Your task to perform on an android device: uninstall "Microsoft Excel" Image 0: 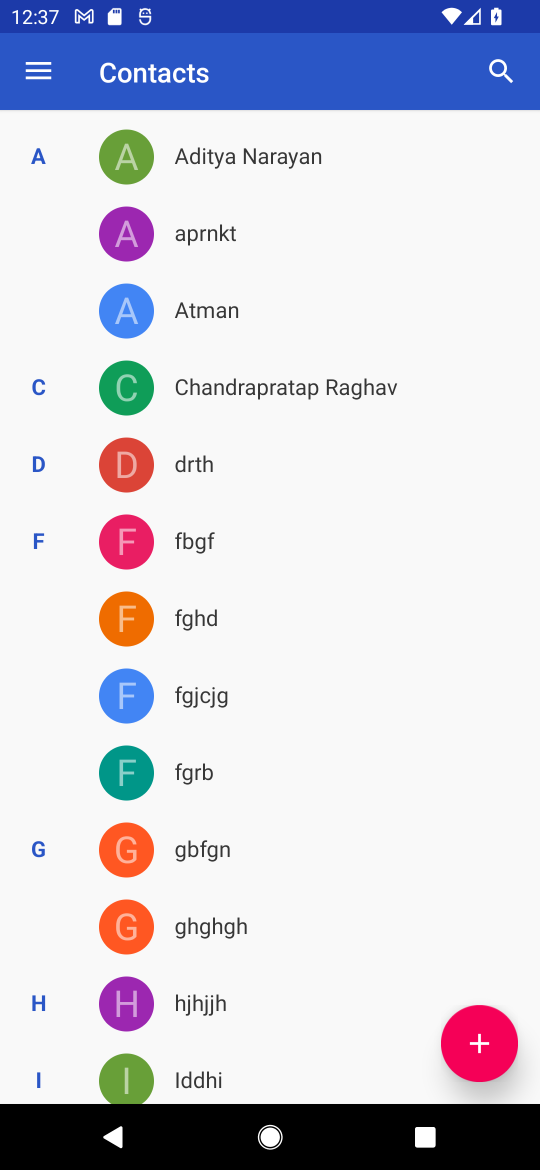
Step 0: press home button
Your task to perform on an android device: uninstall "Microsoft Excel" Image 1: 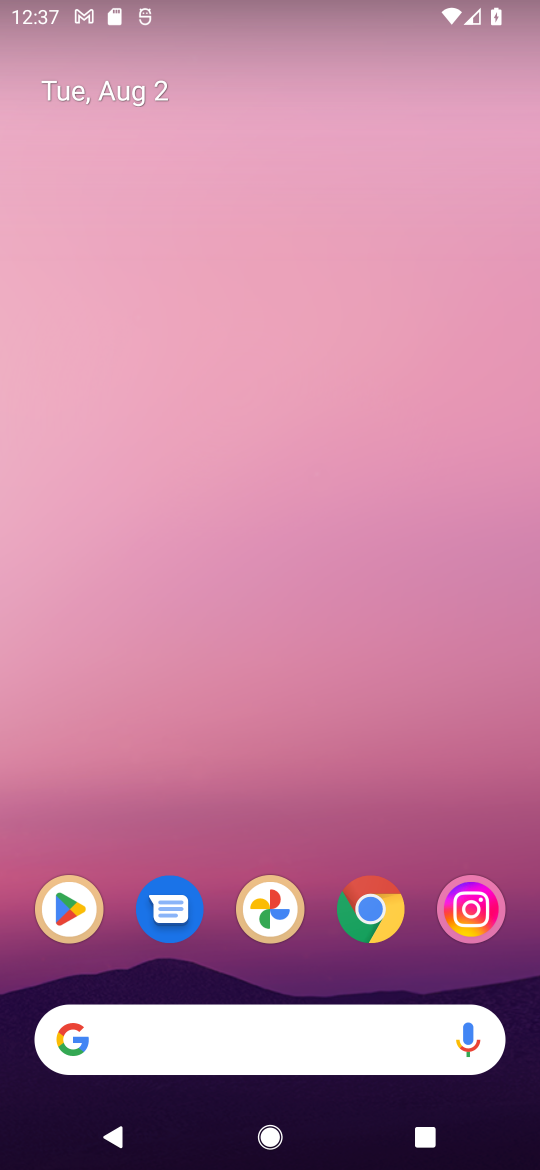
Step 1: click (61, 898)
Your task to perform on an android device: uninstall "Microsoft Excel" Image 2: 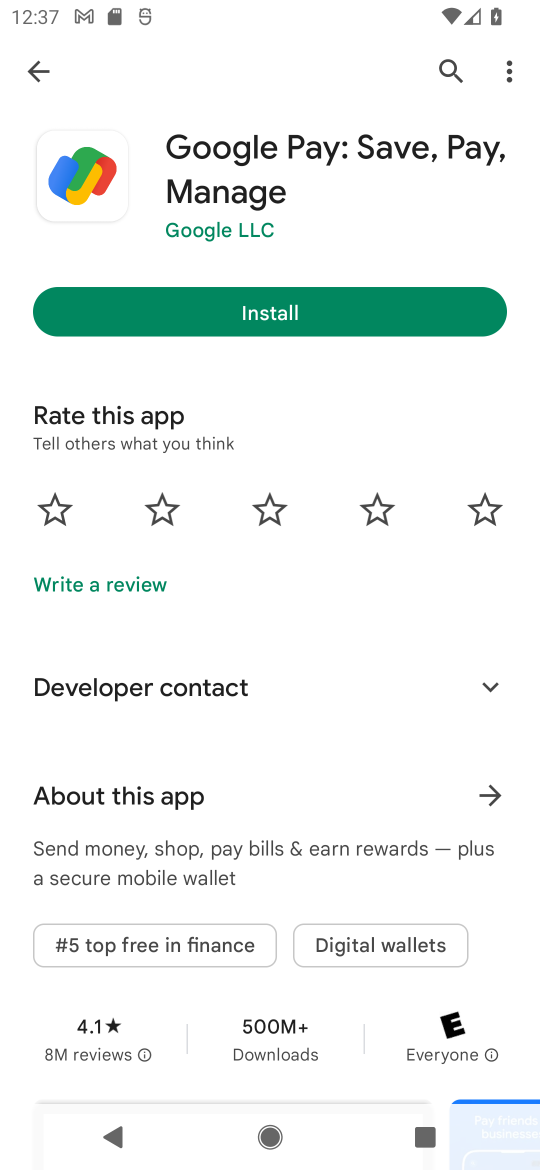
Step 2: click (448, 57)
Your task to perform on an android device: uninstall "Microsoft Excel" Image 3: 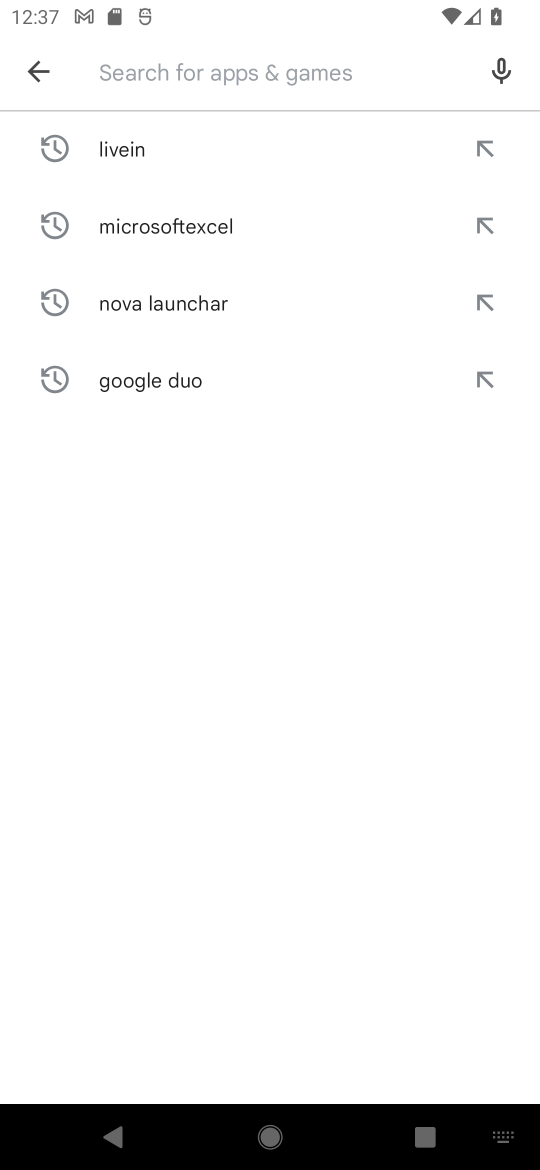
Step 3: click (517, 1150)
Your task to perform on an android device: uninstall "Microsoft Excel" Image 4: 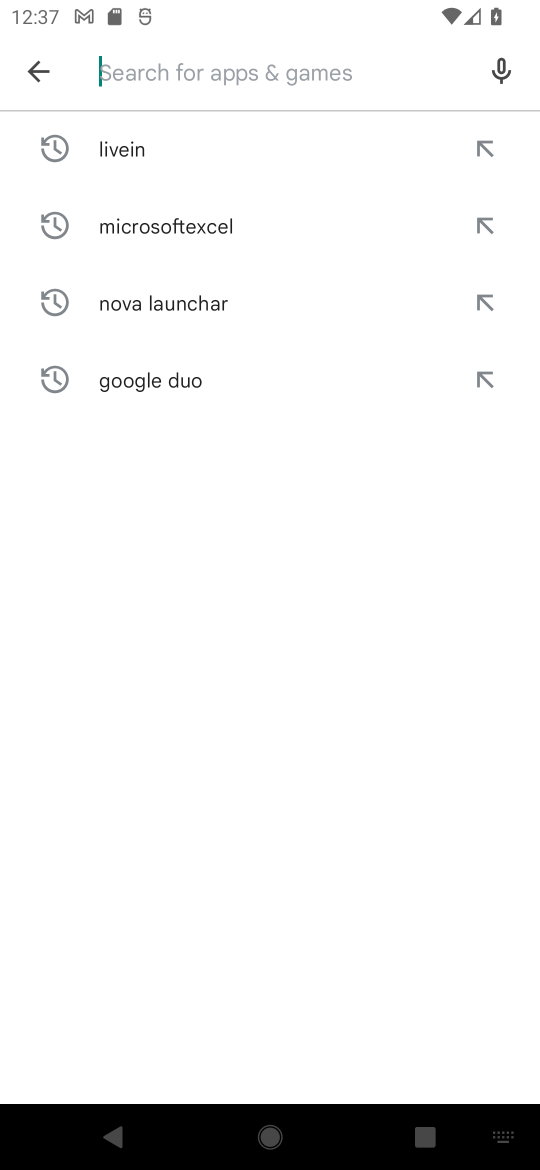
Step 4: type "Microsoft Excel""
Your task to perform on an android device: uninstall "Microsoft Excel" Image 5: 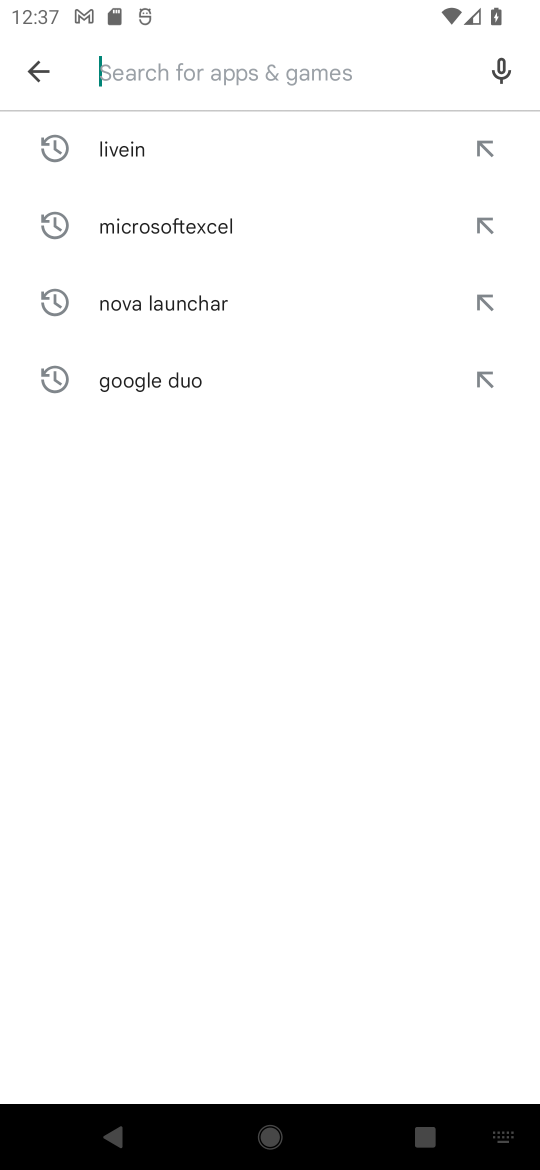
Step 5: drag from (517, 1150) to (531, 342)
Your task to perform on an android device: uninstall "Microsoft Excel" Image 6: 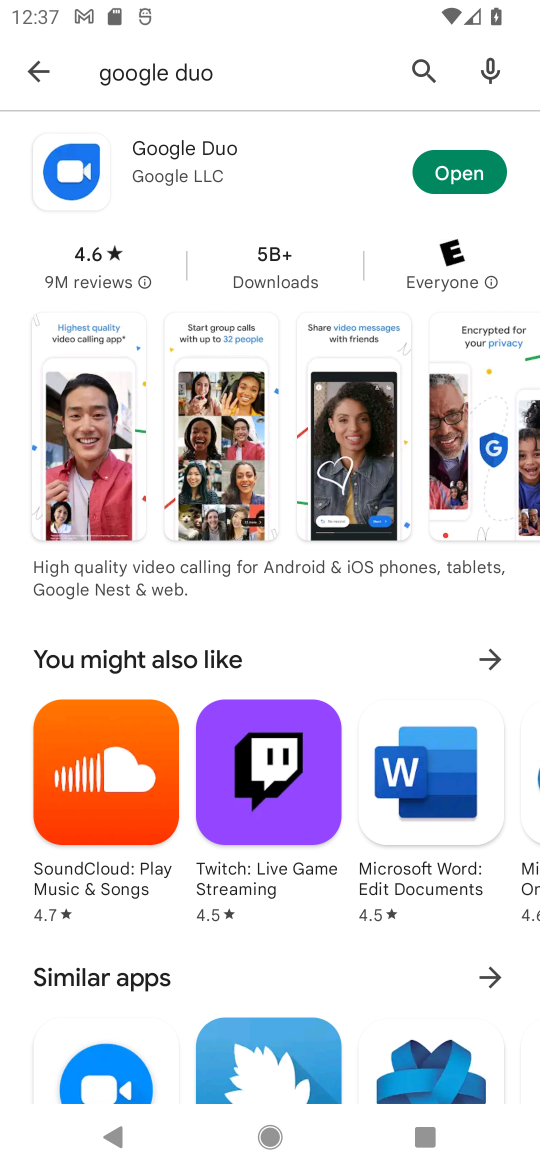
Step 6: click (402, 75)
Your task to perform on an android device: uninstall "Microsoft Excel" Image 7: 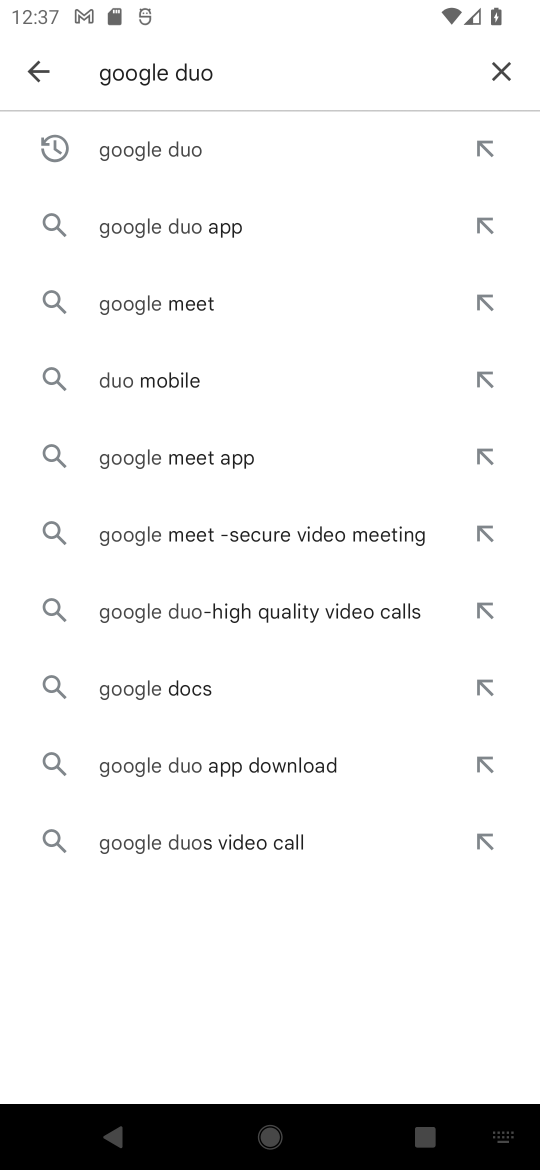
Step 7: click (513, 66)
Your task to perform on an android device: uninstall "Microsoft Excel" Image 8: 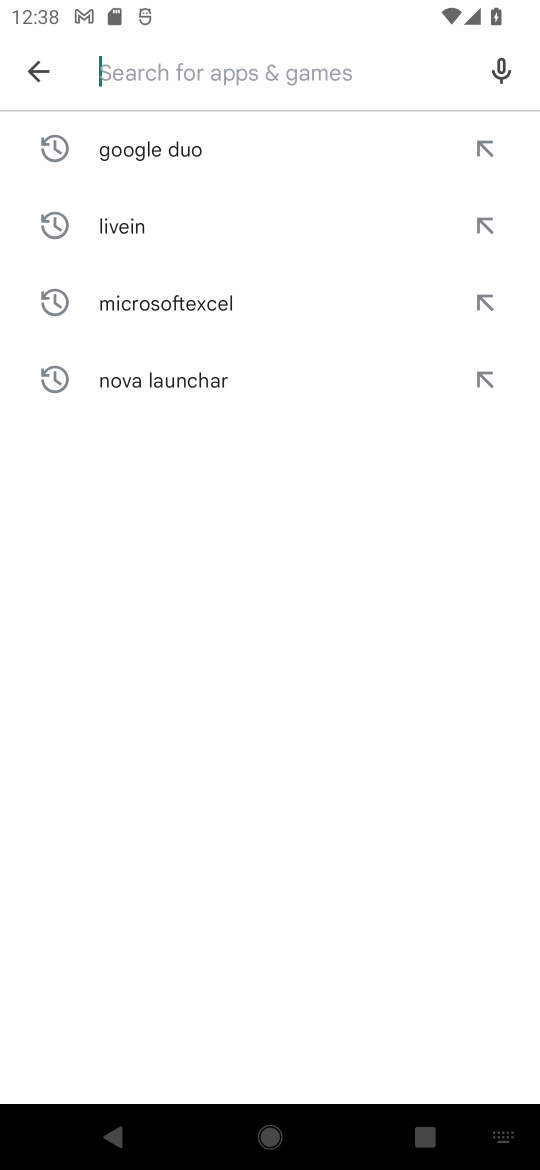
Step 8: type "Microsoft Excel"
Your task to perform on an android device: uninstall "Microsoft Excel" Image 9: 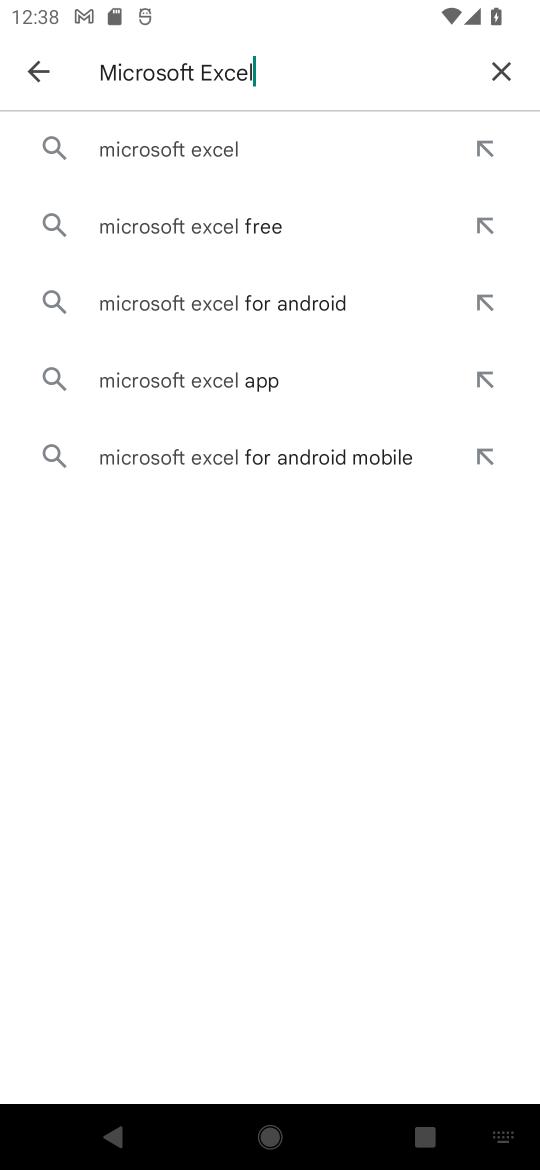
Step 9: click (122, 147)
Your task to perform on an android device: uninstall "Microsoft Excel" Image 10: 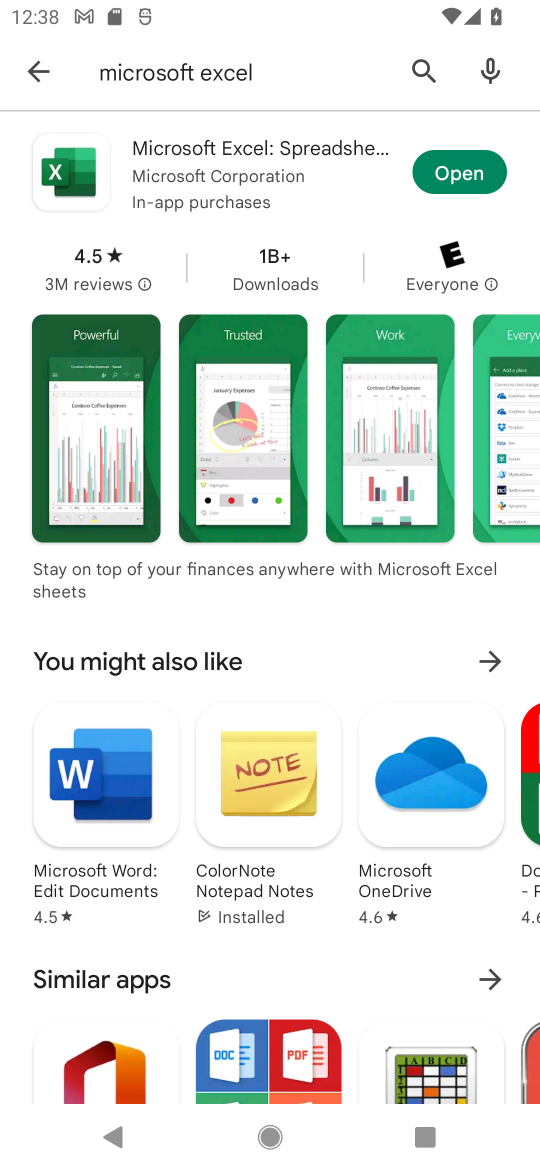
Step 10: click (138, 175)
Your task to perform on an android device: uninstall "Microsoft Excel" Image 11: 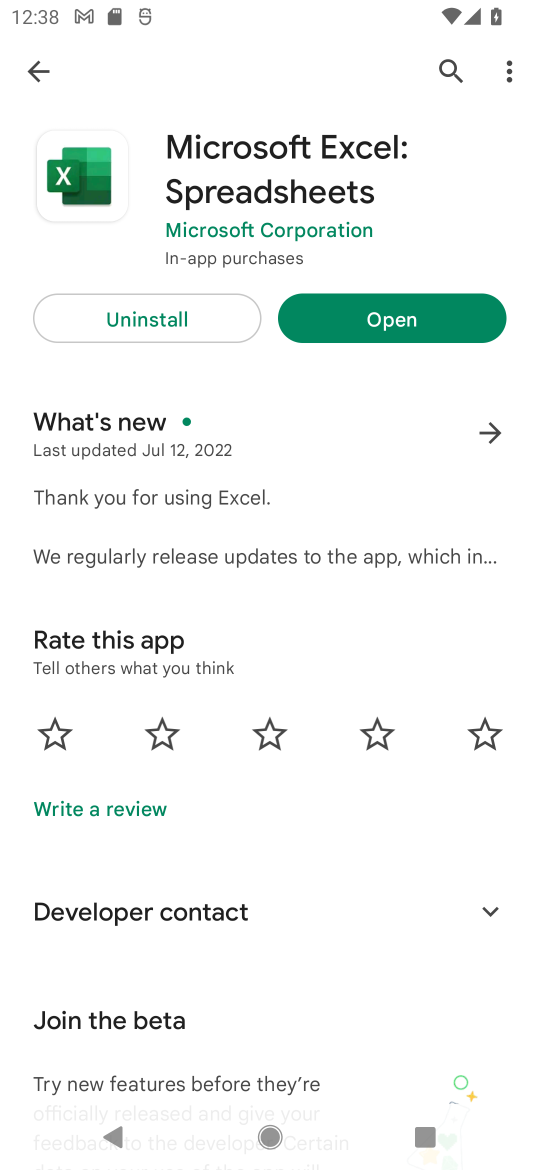
Step 11: click (150, 313)
Your task to perform on an android device: uninstall "Microsoft Excel" Image 12: 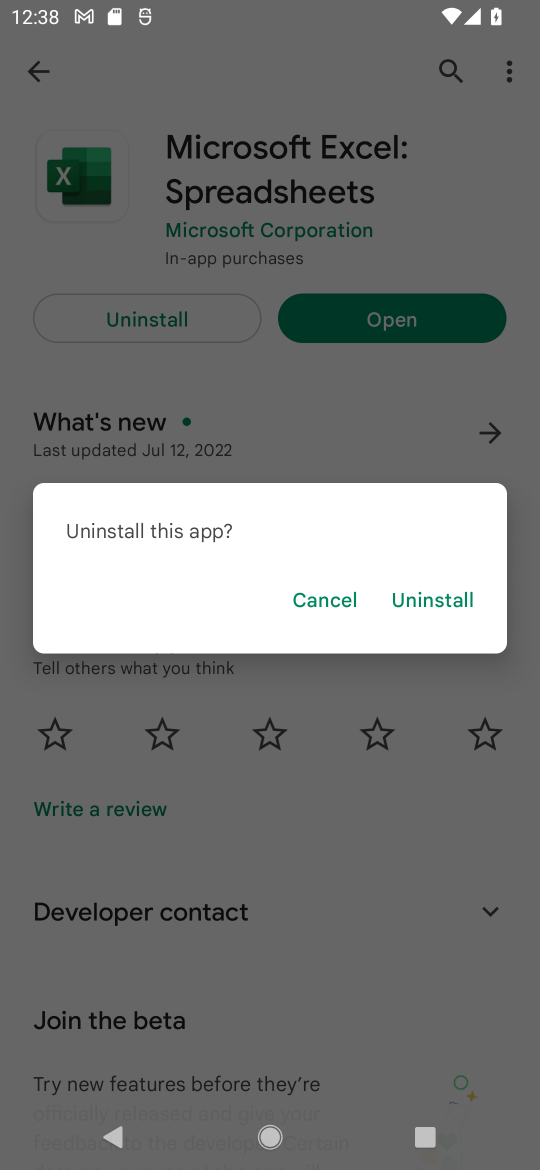
Step 12: click (456, 589)
Your task to perform on an android device: uninstall "Microsoft Excel" Image 13: 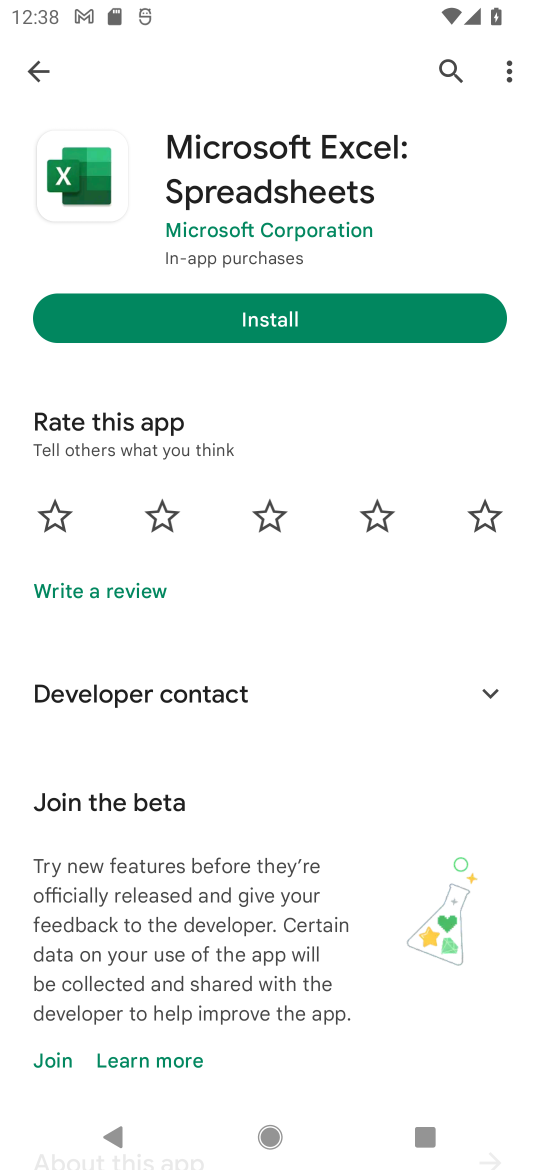
Step 13: task complete